Your task to perform on an android device: change the upload size in google photos Image 0: 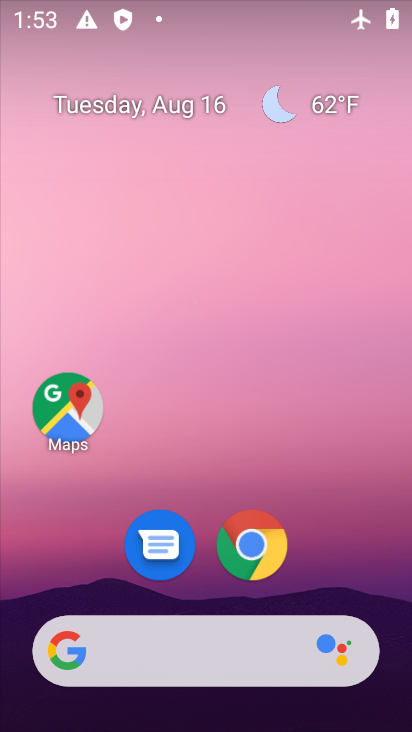
Step 0: drag from (273, 472) to (284, 405)
Your task to perform on an android device: change the upload size in google photos Image 1: 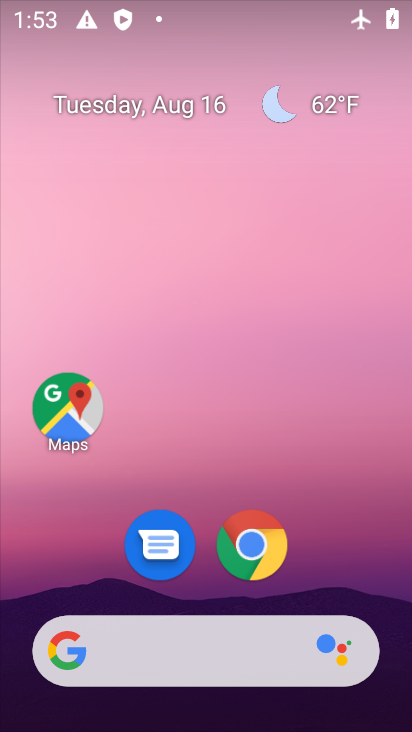
Step 1: drag from (189, 616) to (231, 180)
Your task to perform on an android device: change the upload size in google photos Image 2: 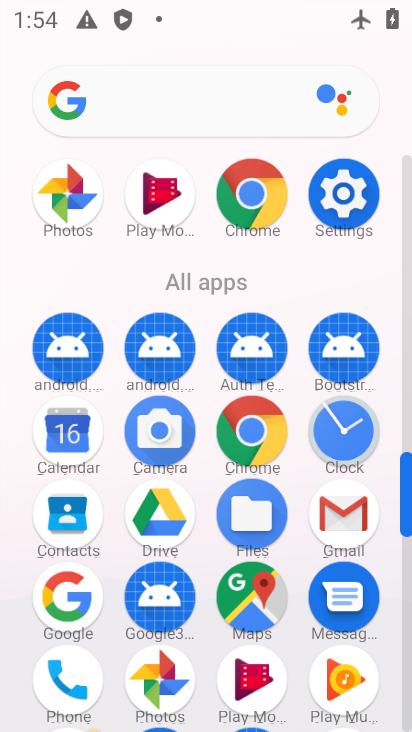
Step 2: click (168, 676)
Your task to perform on an android device: change the upload size in google photos Image 3: 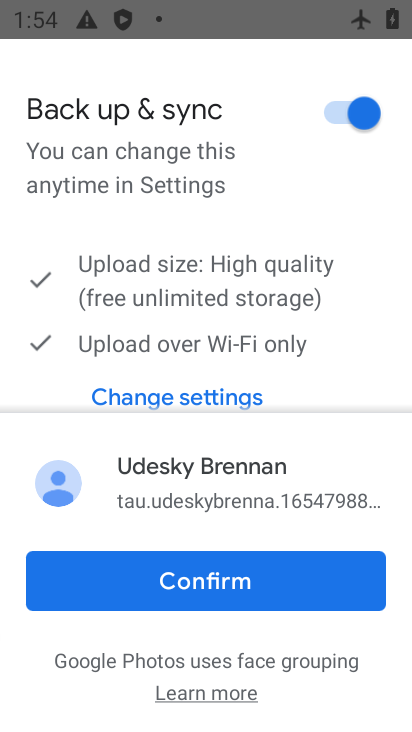
Step 3: click (213, 584)
Your task to perform on an android device: change the upload size in google photos Image 4: 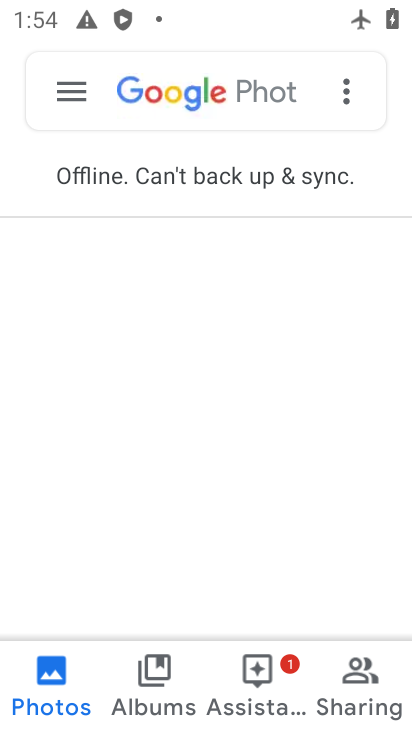
Step 4: click (67, 89)
Your task to perform on an android device: change the upload size in google photos Image 5: 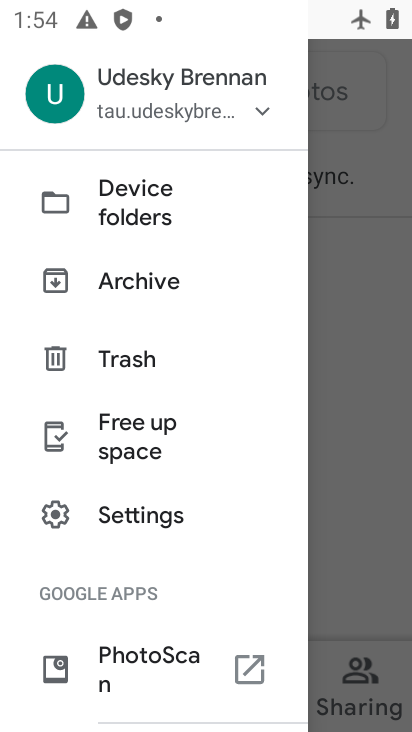
Step 5: drag from (131, 640) to (189, 301)
Your task to perform on an android device: change the upload size in google photos Image 6: 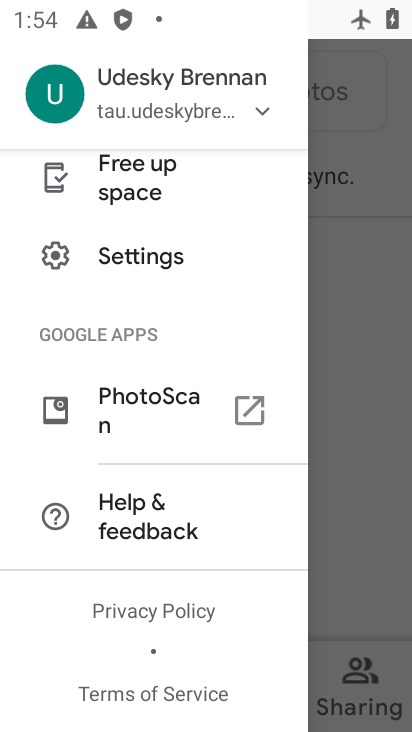
Step 6: click (130, 244)
Your task to perform on an android device: change the upload size in google photos Image 7: 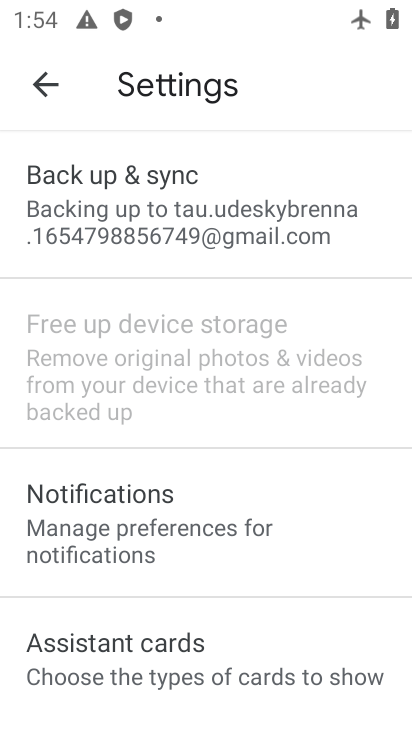
Step 7: drag from (141, 635) to (165, 285)
Your task to perform on an android device: change the upload size in google photos Image 8: 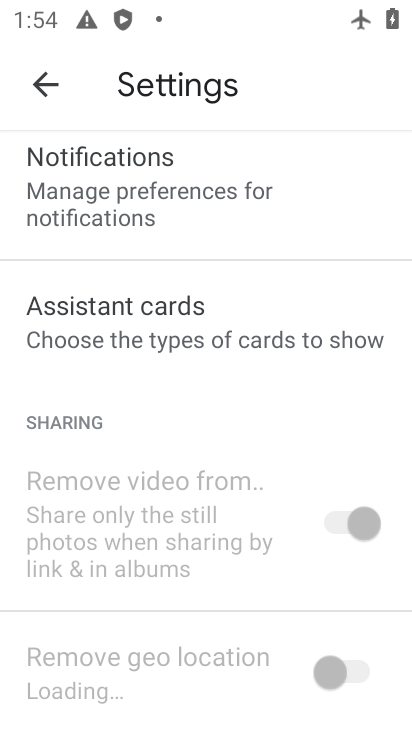
Step 8: click (127, 498)
Your task to perform on an android device: change the upload size in google photos Image 9: 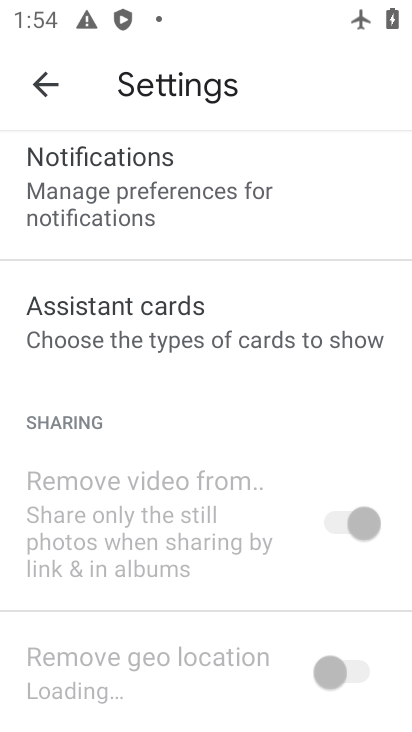
Step 9: click (360, 522)
Your task to perform on an android device: change the upload size in google photos Image 10: 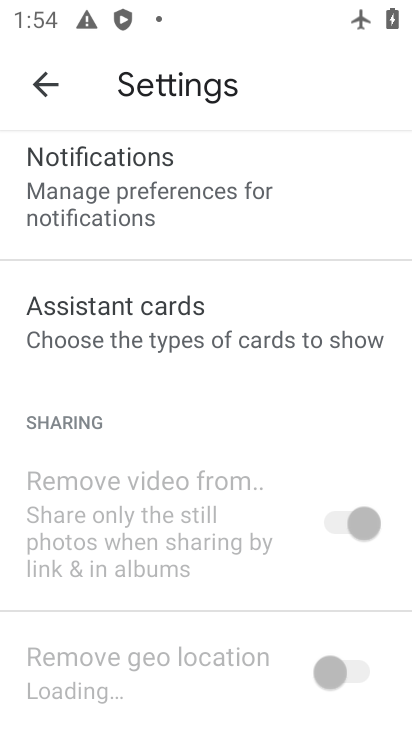
Step 10: drag from (188, 614) to (257, 123)
Your task to perform on an android device: change the upload size in google photos Image 11: 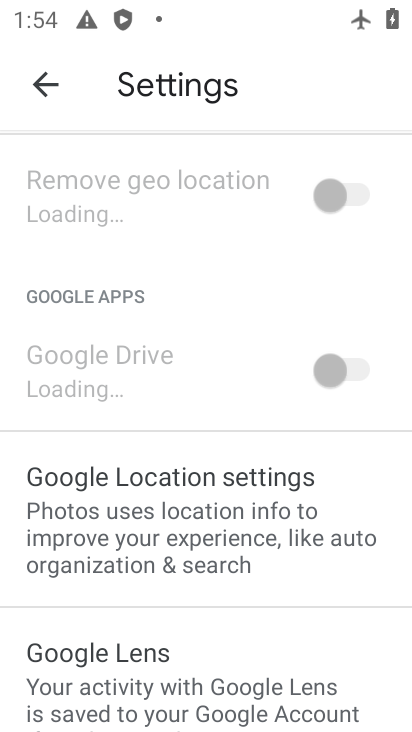
Step 11: drag from (145, 589) to (177, 292)
Your task to perform on an android device: change the upload size in google photos Image 12: 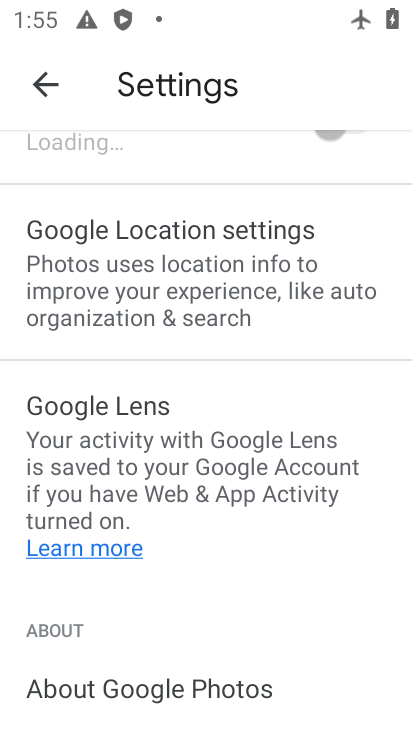
Step 12: drag from (236, 454) to (251, 246)
Your task to perform on an android device: change the upload size in google photos Image 13: 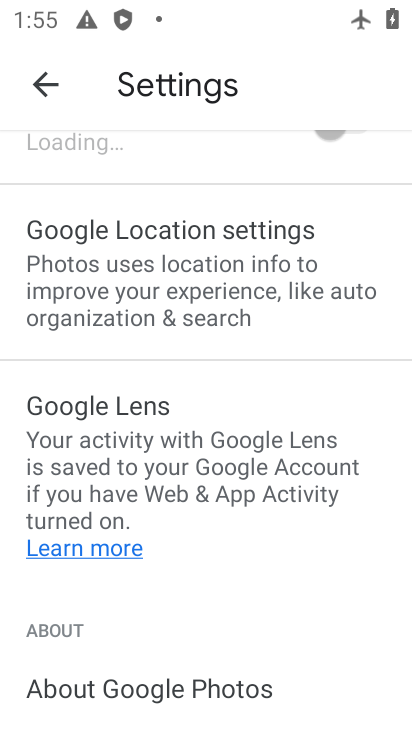
Step 13: drag from (143, 691) to (152, 315)
Your task to perform on an android device: change the upload size in google photos Image 14: 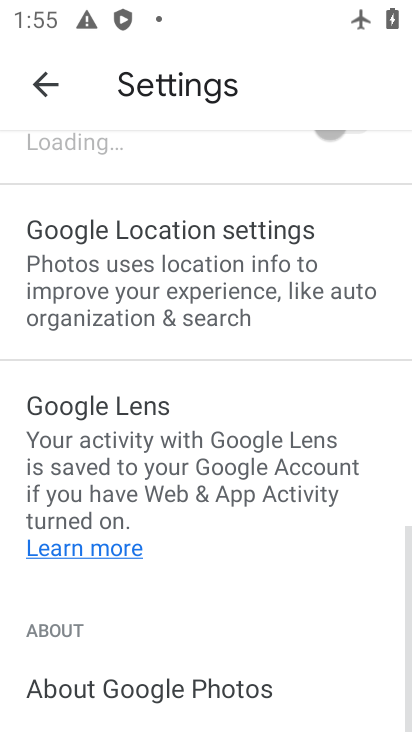
Step 14: drag from (153, 170) to (163, 614)
Your task to perform on an android device: change the upload size in google photos Image 15: 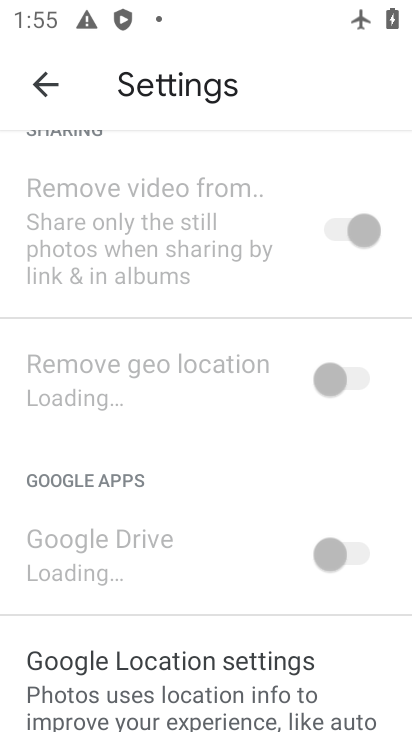
Step 15: drag from (158, 211) to (227, 618)
Your task to perform on an android device: change the upload size in google photos Image 16: 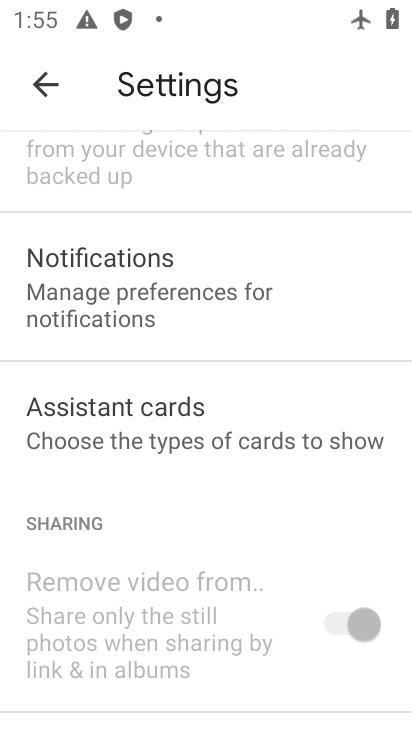
Step 16: drag from (196, 234) to (224, 623)
Your task to perform on an android device: change the upload size in google photos Image 17: 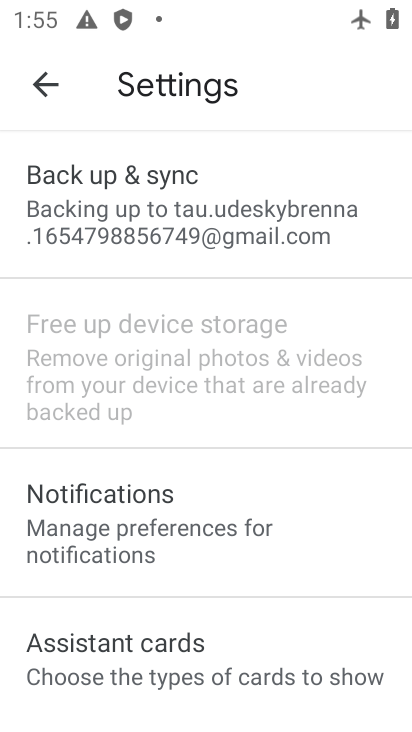
Step 17: click (128, 204)
Your task to perform on an android device: change the upload size in google photos Image 18: 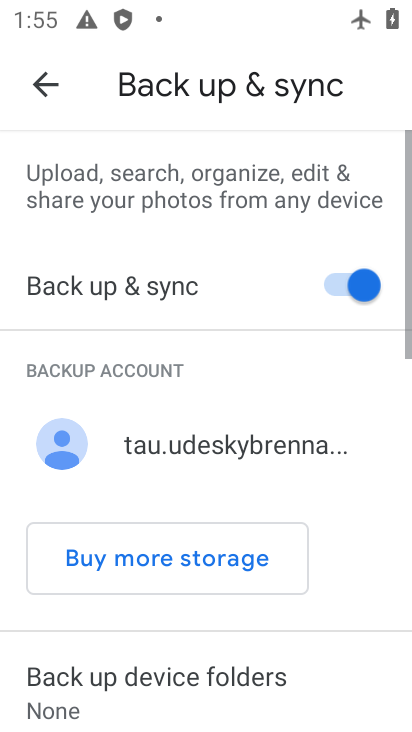
Step 18: drag from (136, 610) to (165, 204)
Your task to perform on an android device: change the upload size in google photos Image 19: 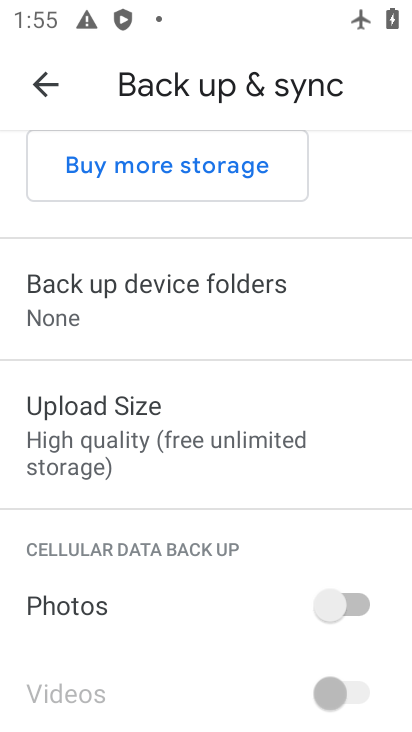
Step 19: click (63, 437)
Your task to perform on an android device: change the upload size in google photos Image 20: 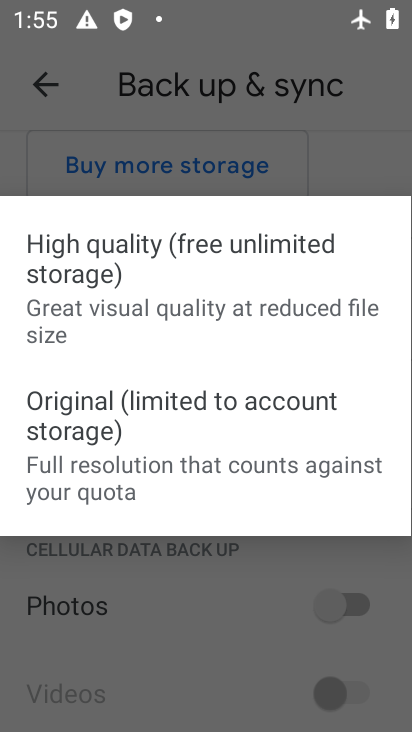
Step 20: click (80, 440)
Your task to perform on an android device: change the upload size in google photos Image 21: 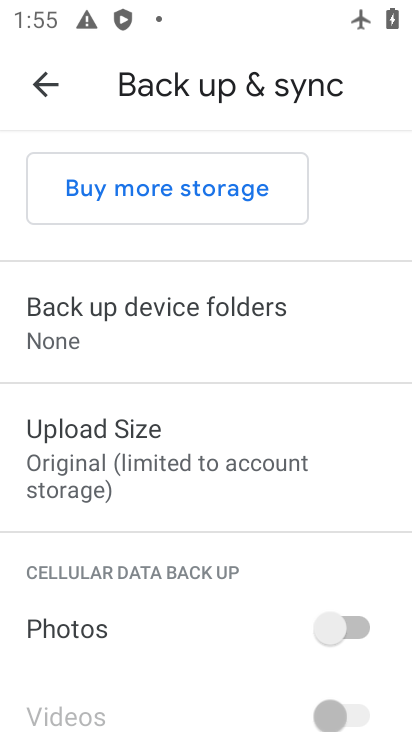
Step 21: task complete